Your task to perform on an android device: turn pop-ups on in chrome Image 0: 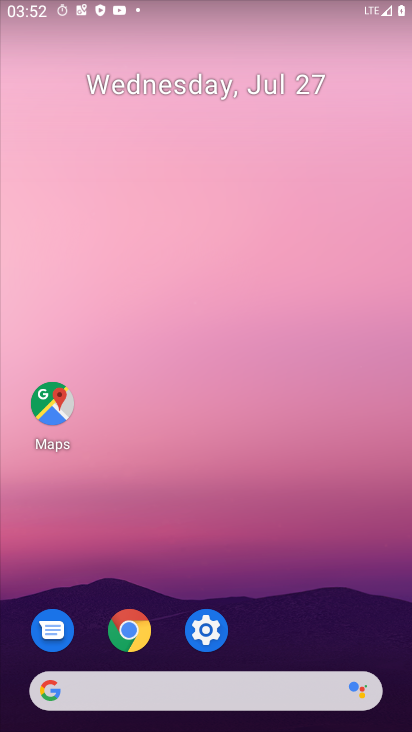
Step 0: drag from (313, 525) to (252, 60)
Your task to perform on an android device: turn pop-ups on in chrome Image 1: 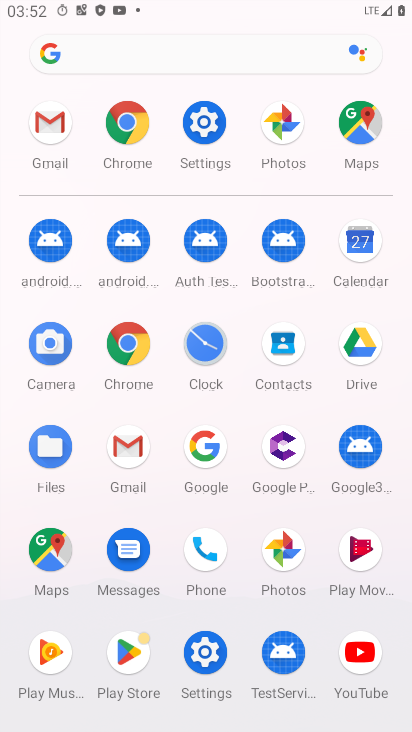
Step 1: drag from (314, 592) to (207, 271)
Your task to perform on an android device: turn pop-ups on in chrome Image 2: 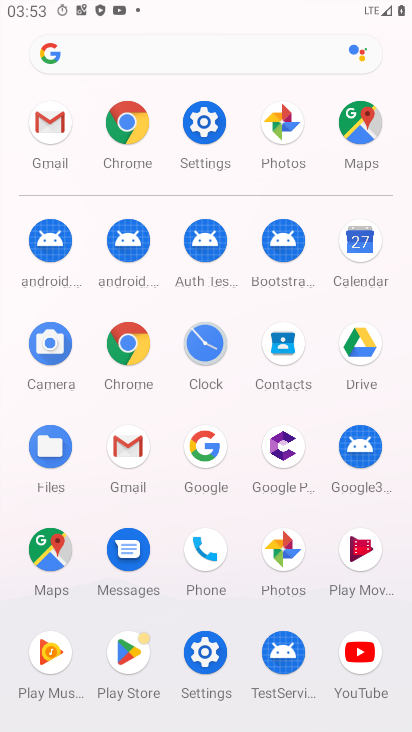
Step 2: click (131, 131)
Your task to perform on an android device: turn pop-ups on in chrome Image 3: 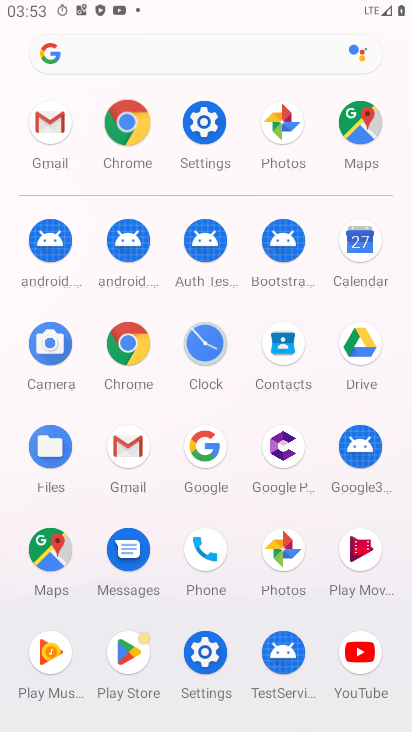
Step 3: click (131, 131)
Your task to perform on an android device: turn pop-ups on in chrome Image 4: 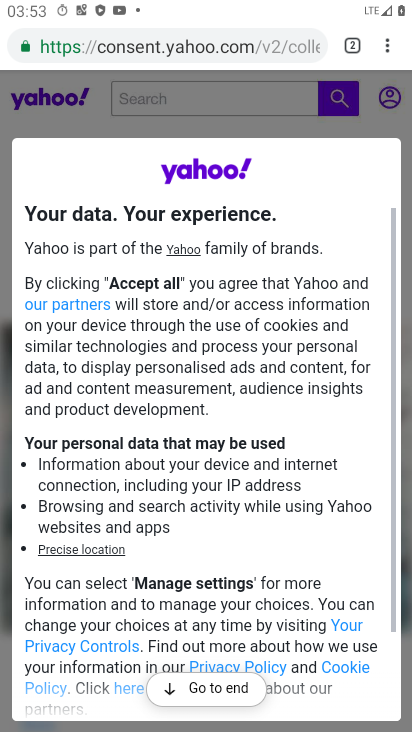
Step 4: drag from (381, 47) to (239, 552)
Your task to perform on an android device: turn pop-ups on in chrome Image 5: 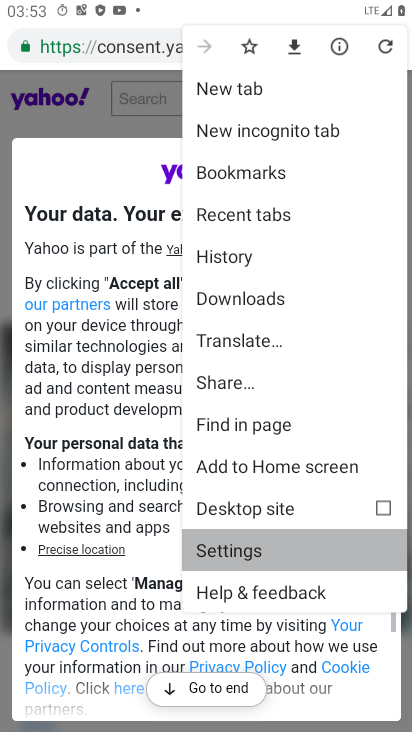
Step 5: click (245, 556)
Your task to perform on an android device: turn pop-ups on in chrome Image 6: 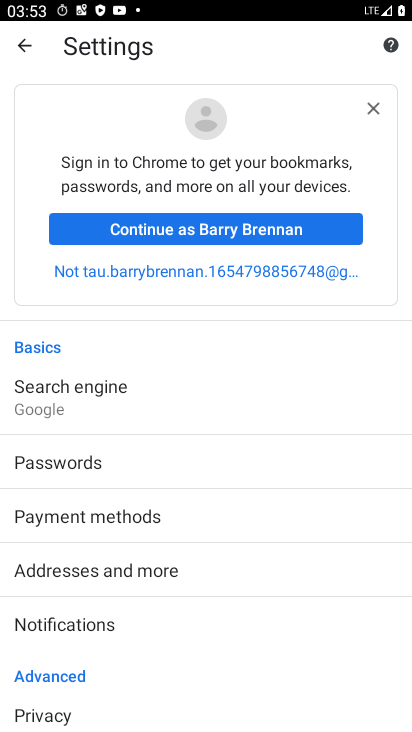
Step 6: drag from (84, 641) to (15, 296)
Your task to perform on an android device: turn pop-ups on in chrome Image 7: 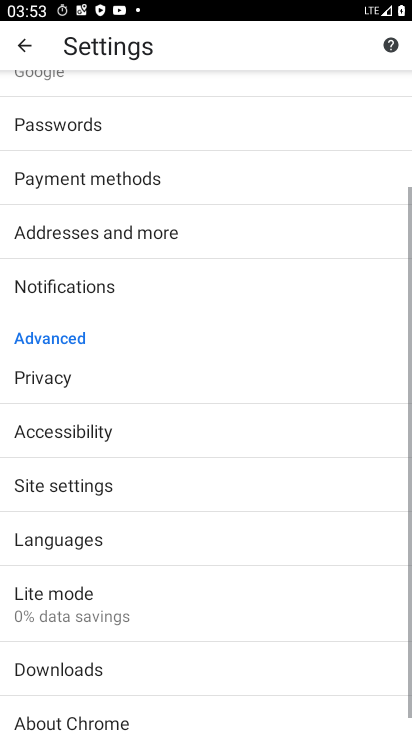
Step 7: drag from (78, 574) to (41, 351)
Your task to perform on an android device: turn pop-ups on in chrome Image 8: 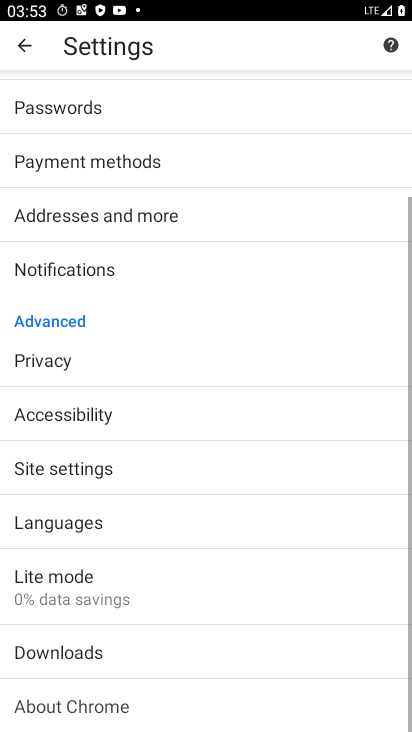
Step 8: drag from (86, 621) to (72, 407)
Your task to perform on an android device: turn pop-ups on in chrome Image 9: 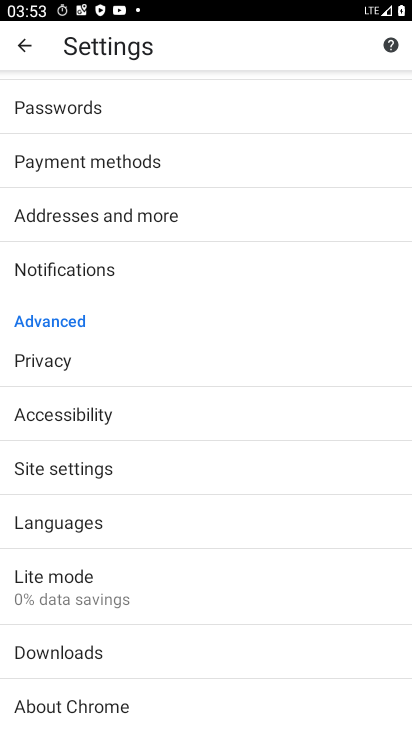
Step 9: click (44, 464)
Your task to perform on an android device: turn pop-ups on in chrome Image 10: 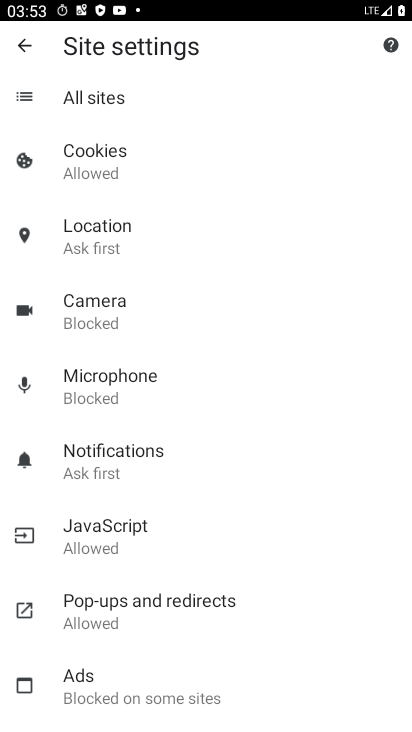
Step 10: click (89, 602)
Your task to perform on an android device: turn pop-ups on in chrome Image 11: 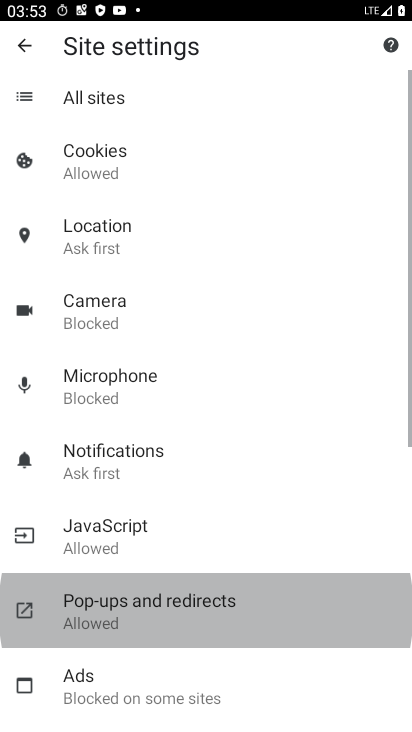
Step 11: click (102, 607)
Your task to perform on an android device: turn pop-ups on in chrome Image 12: 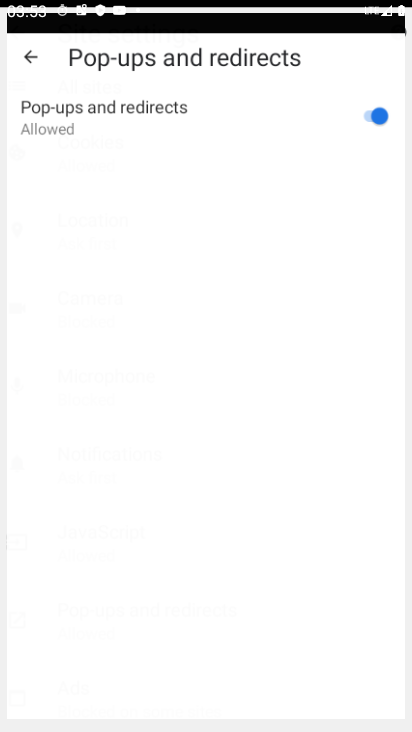
Step 12: click (109, 602)
Your task to perform on an android device: turn pop-ups on in chrome Image 13: 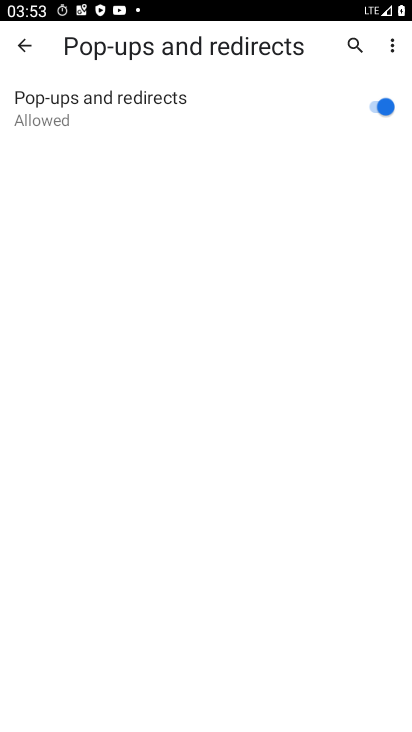
Step 13: task complete